Your task to perform on an android device: What's the news in Taiwan? Image 0: 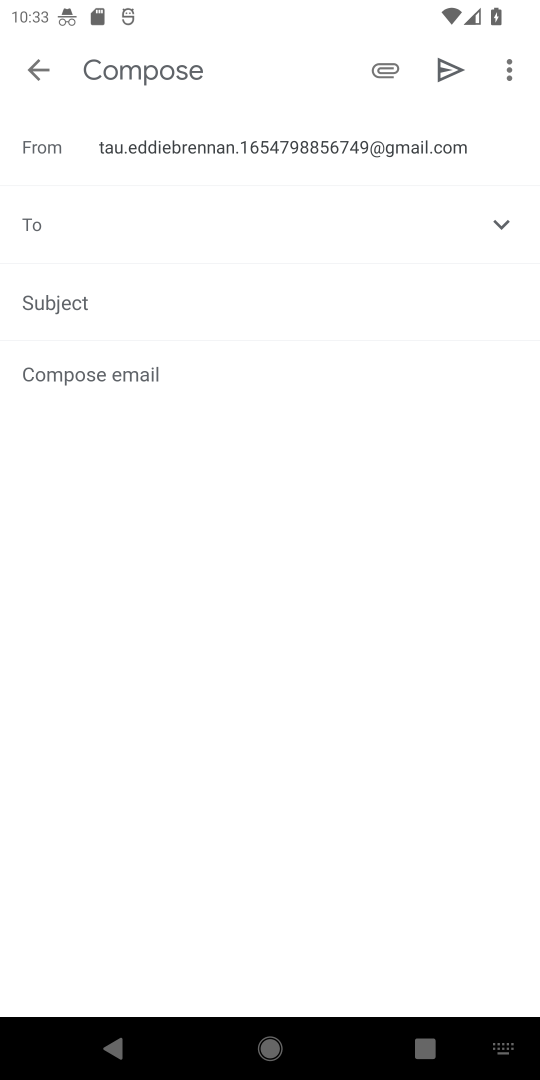
Step 0: press home button
Your task to perform on an android device: What's the news in Taiwan? Image 1: 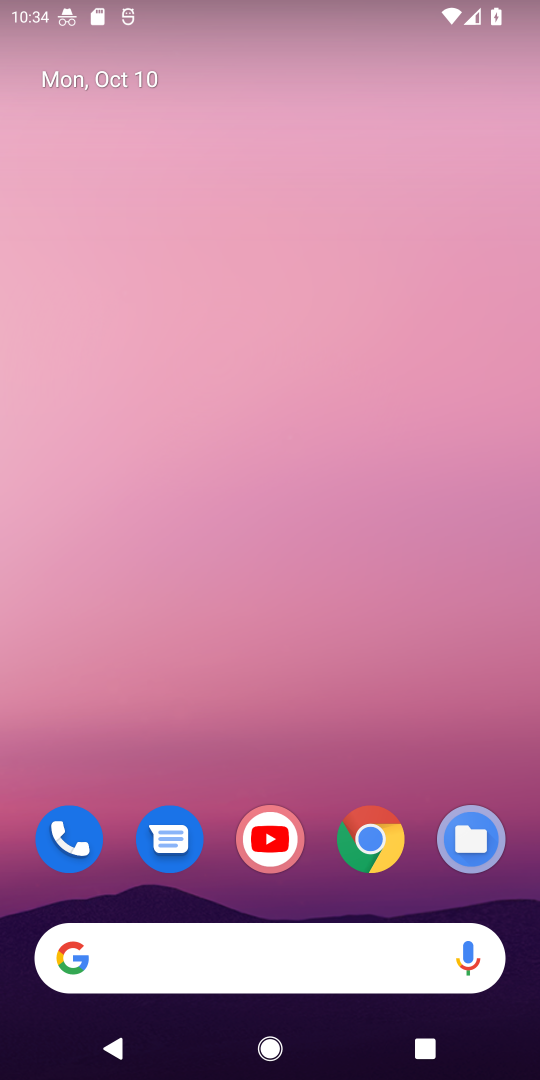
Step 1: drag from (316, 881) to (336, 200)
Your task to perform on an android device: What's the news in Taiwan? Image 2: 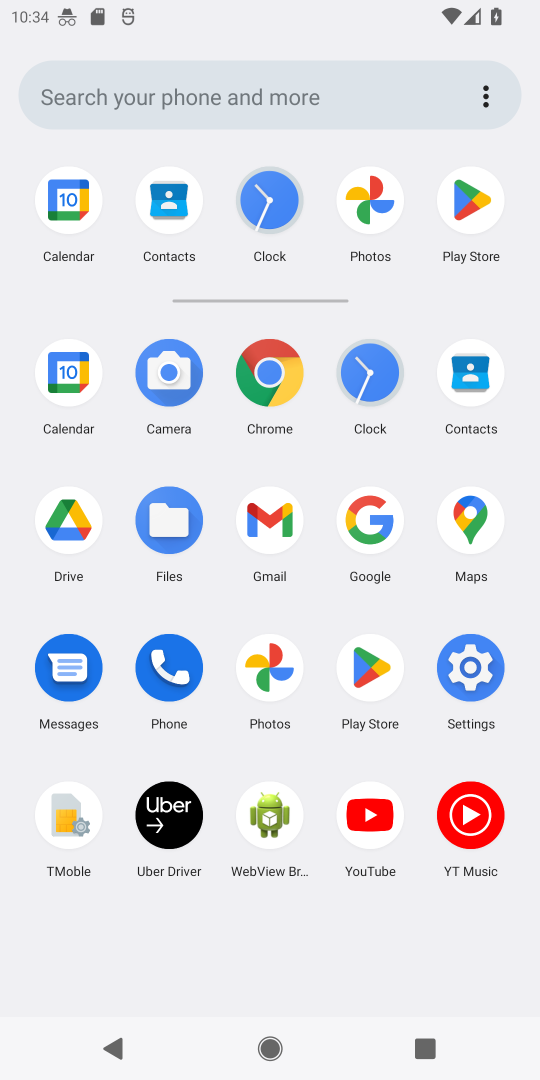
Step 2: click (270, 373)
Your task to perform on an android device: What's the news in Taiwan? Image 3: 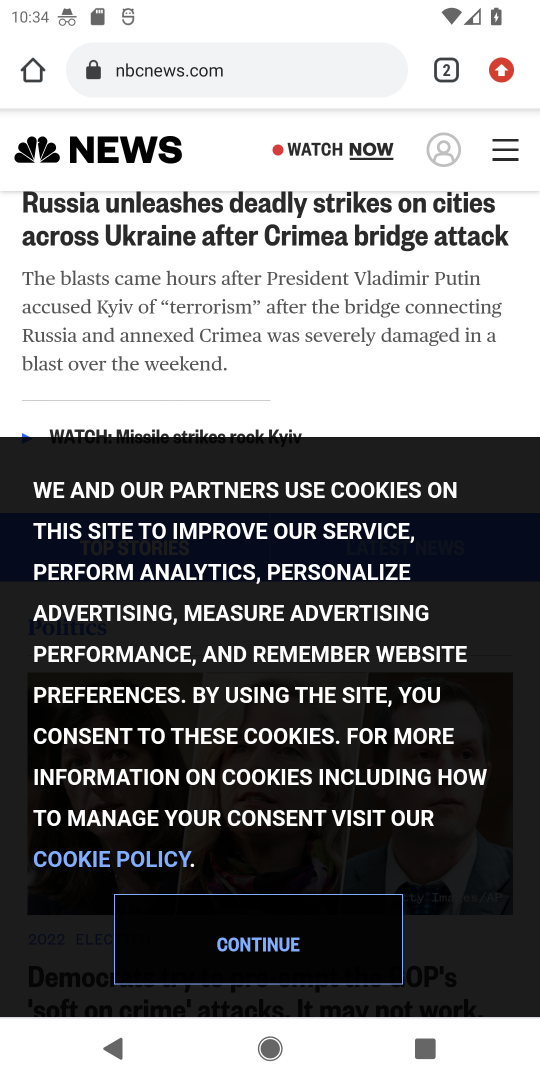
Step 3: click (253, 74)
Your task to perform on an android device: What's the news in Taiwan? Image 4: 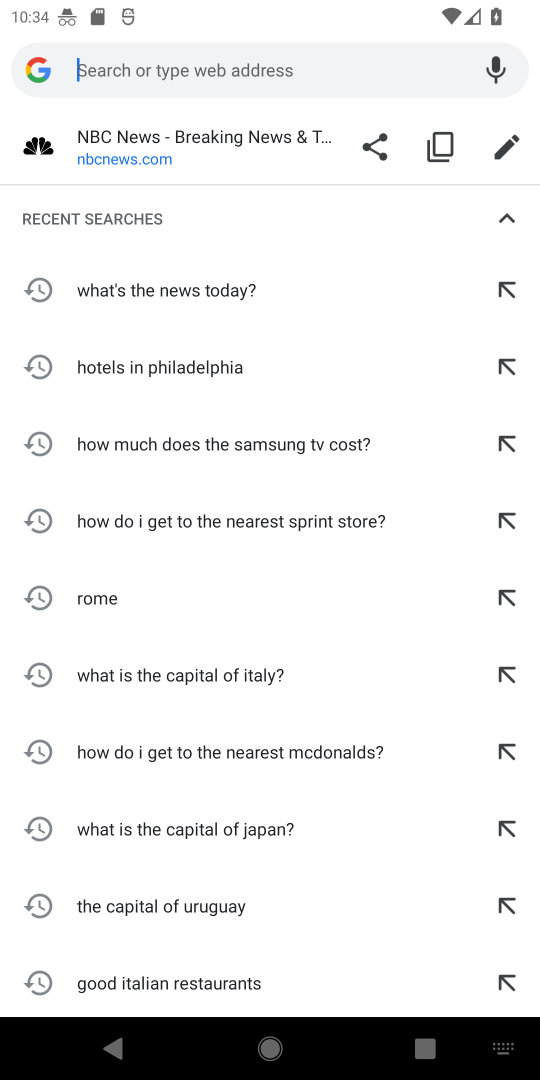
Step 4: type "What's the news in Taiwan?"
Your task to perform on an android device: What's the news in Taiwan? Image 5: 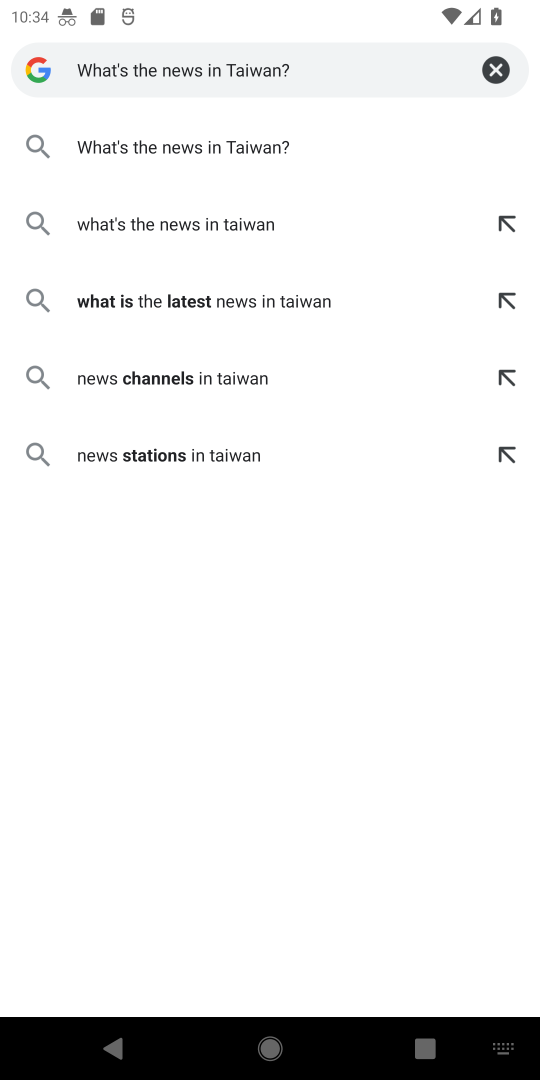
Step 5: press enter
Your task to perform on an android device: What's the news in Taiwan? Image 6: 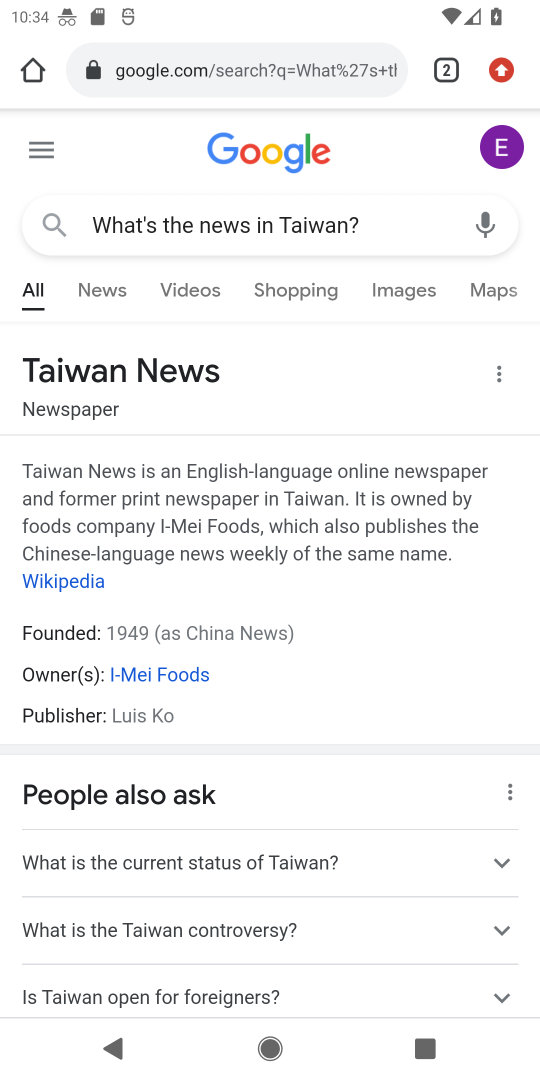
Step 6: drag from (322, 807) to (277, 214)
Your task to perform on an android device: What's the news in Taiwan? Image 7: 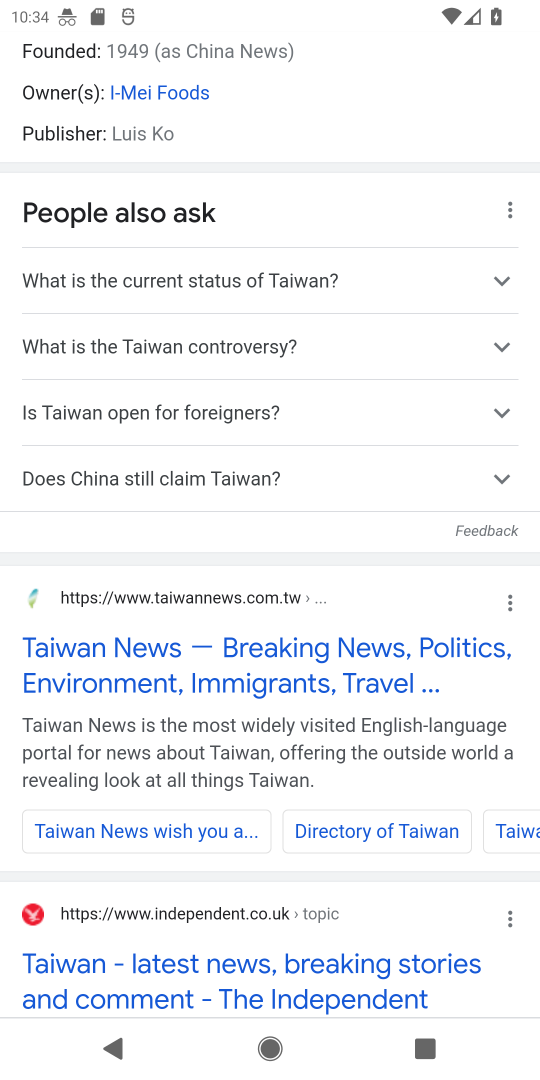
Step 7: click (226, 683)
Your task to perform on an android device: What's the news in Taiwan? Image 8: 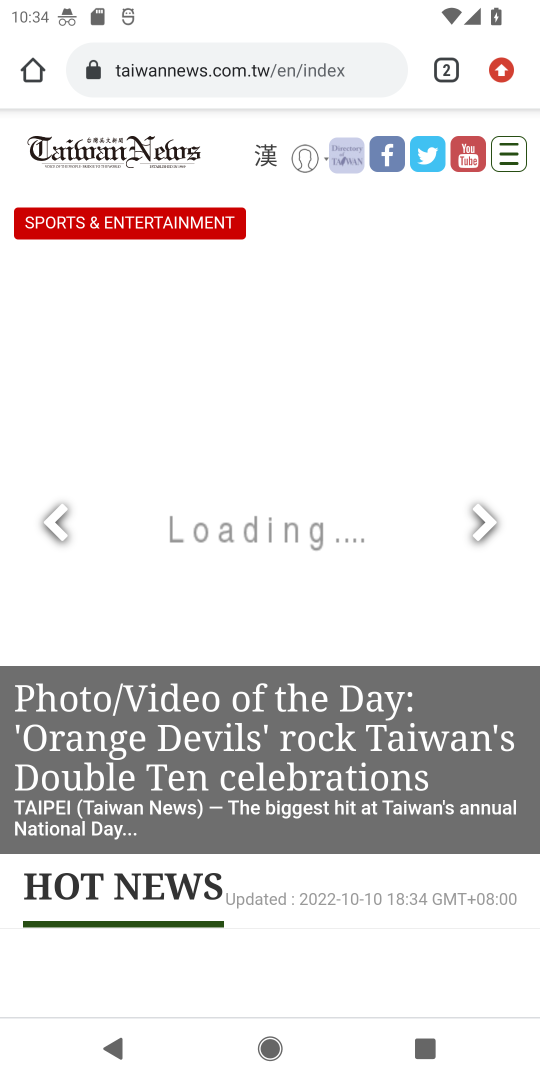
Step 8: task complete